Your task to perform on an android device: star an email in the gmail app Image 0: 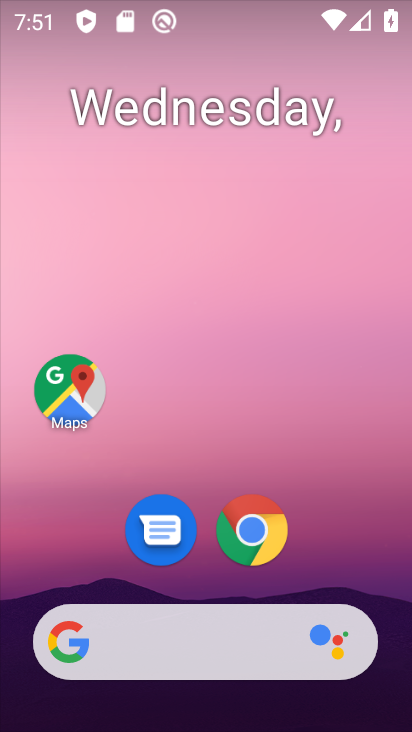
Step 0: drag from (206, 568) to (259, 212)
Your task to perform on an android device: star an email in the gmail app Image 1: 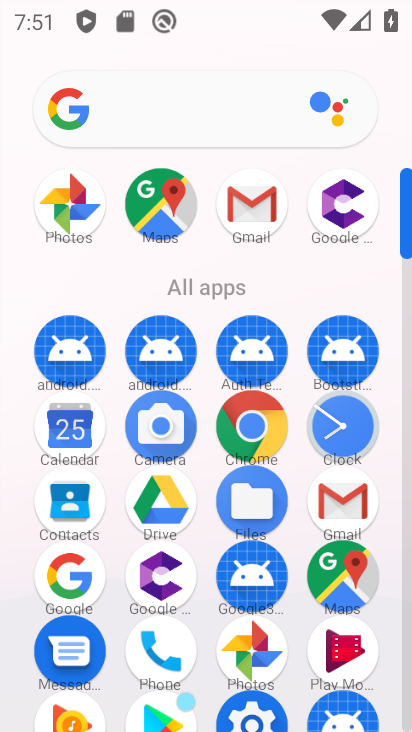
Step 1: click (247, 202)
Your task to perform on an android device: star an email in the gmail app Image 2: 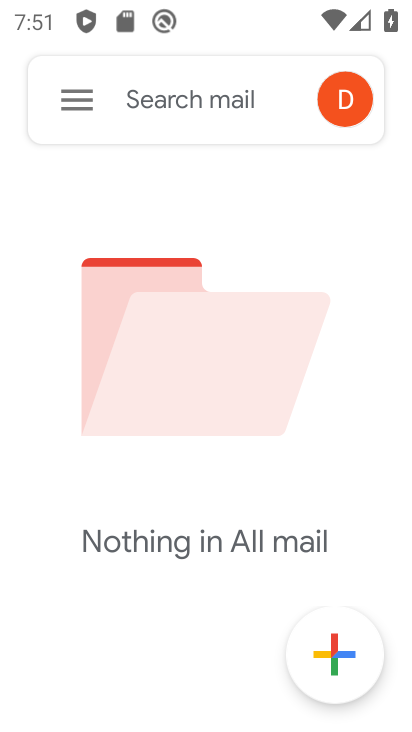
Step 2: task complete